Your task to perform on an android device: search for starred emails in the gmail app Image 0: 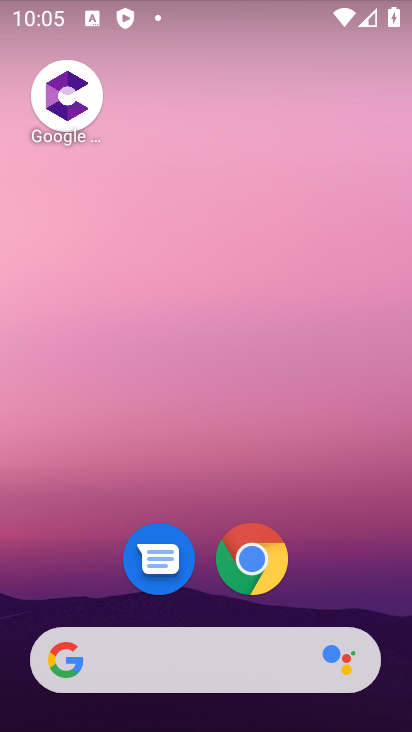
Step 0: drag from (332, 536) to (240, 46)
Your task to perform on an android device: search for starred emails in the gmail app Image 1: 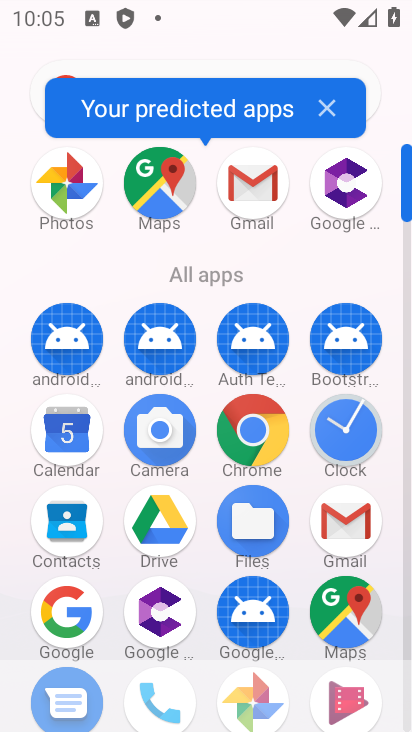
Step 1: drag from (245, 178) to (94, 189)
Your task to perform on an android device: search for starred emails in the gmail app Image 2: 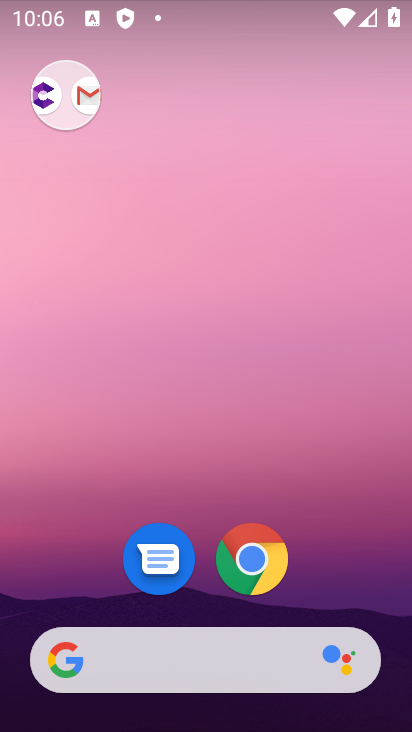
Step 2: click (83, 86)
Your task to perform on an android device: search for starred emails in the gmail app Image 3: 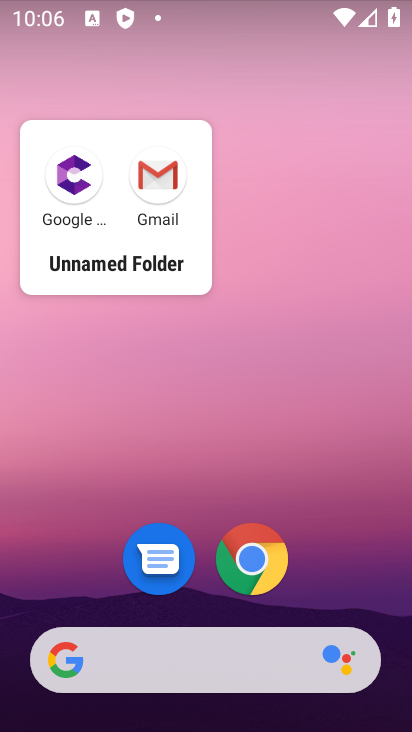
Step 3: drag from (153, 176) to (48, 406)
Your task to perform on an android device: search for starred emails in the gmail app Image 4: 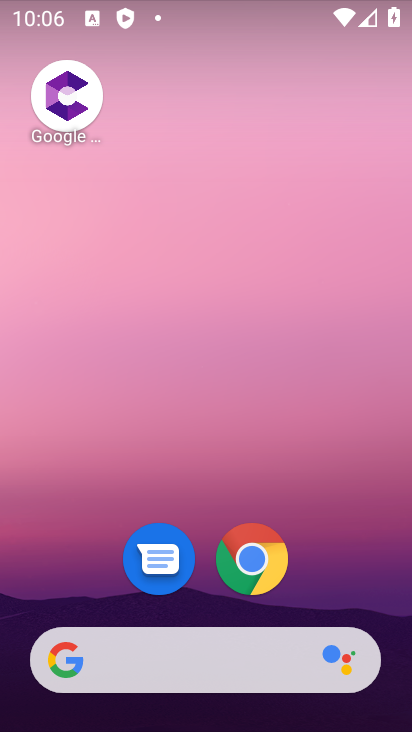
Step 4: drag from (51, 368) to (245, 12)
Your task to perform on an android device: search for starred emails in the gmail app Image 5: 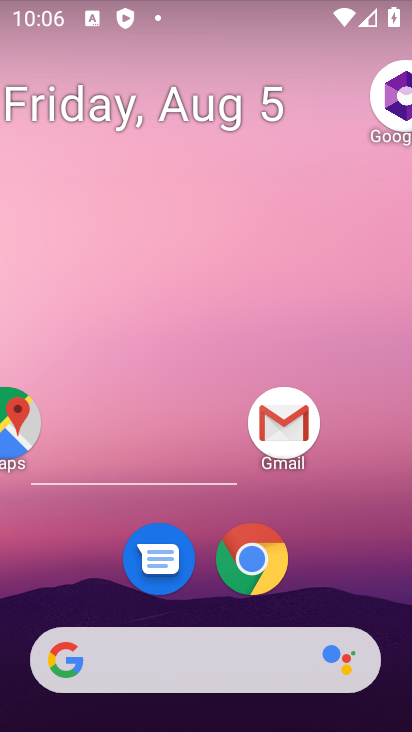
Step 5: click (240, 428)
Your task to perform on an android device: search for starred emails in the gmail app Image 6: 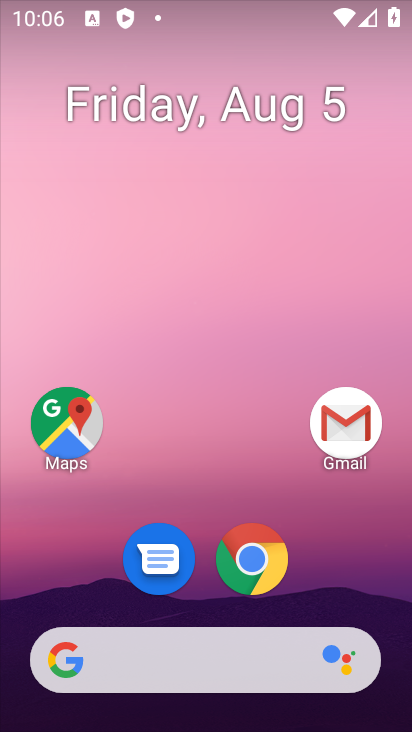
Step 6: click (339, 419)
Your task to perform on an android device: search for starred emails in the gmail app Image 7: 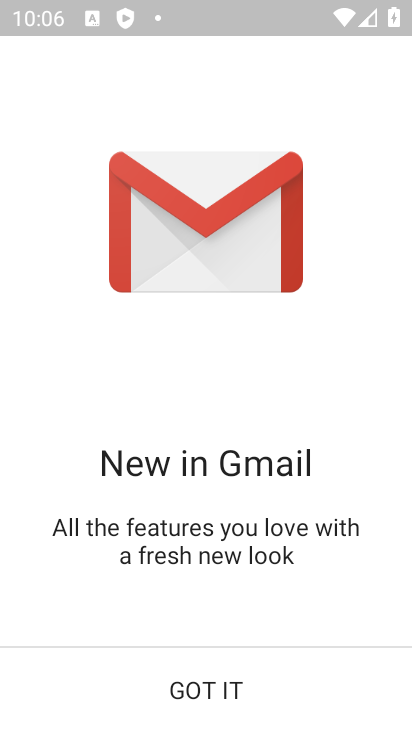
Step 7: click (178, 700)
Your task to perform on an android device: search for starred emails in the gmail app Image 8: 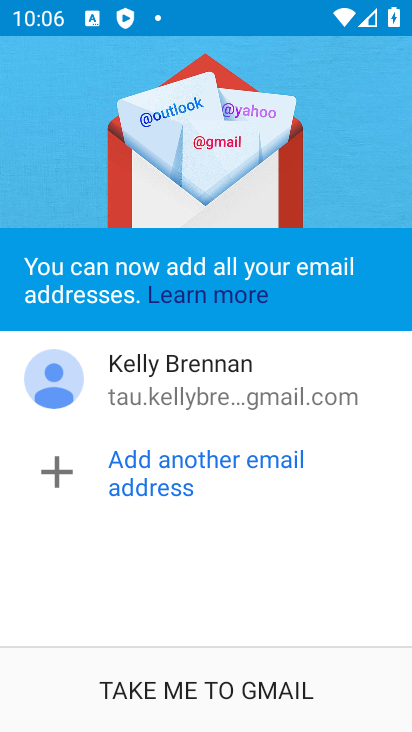
Step 8: press home button
Your task to perform on an android device: search for starred emails in the gmail app Image 9: 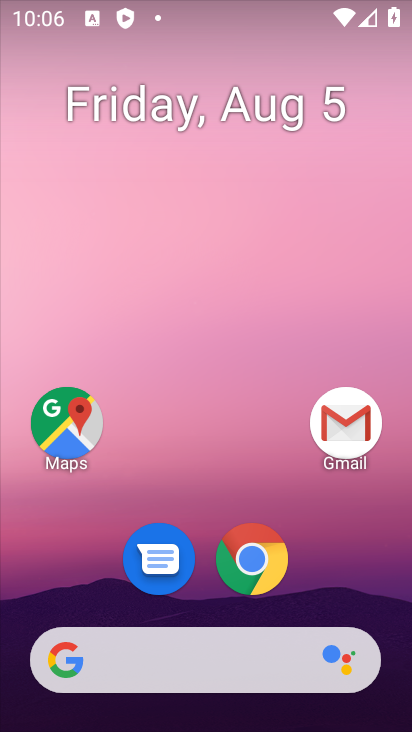
Step 9: click (360, 430)
Your task to perform on an android device: search for starred emails in the gmail app Image 10: 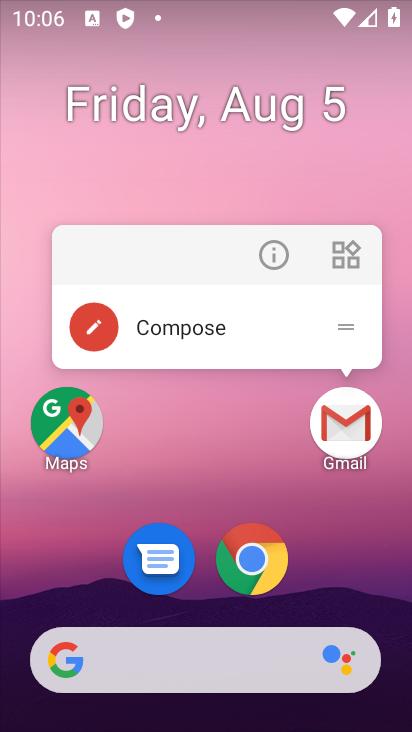
Step 10: click (360, 403)
Your task to perform on an android device: search for starred emails in the gmail app Image 11: 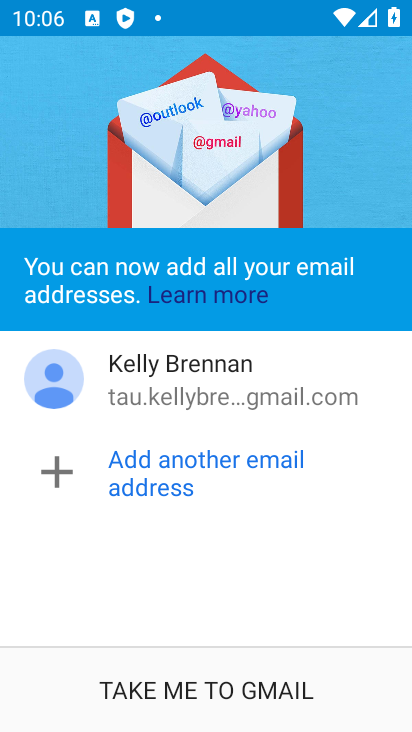
Step 11: click (280, 722)
Your task to perform on an android device: search for starred emails in the gmail app Image 12: 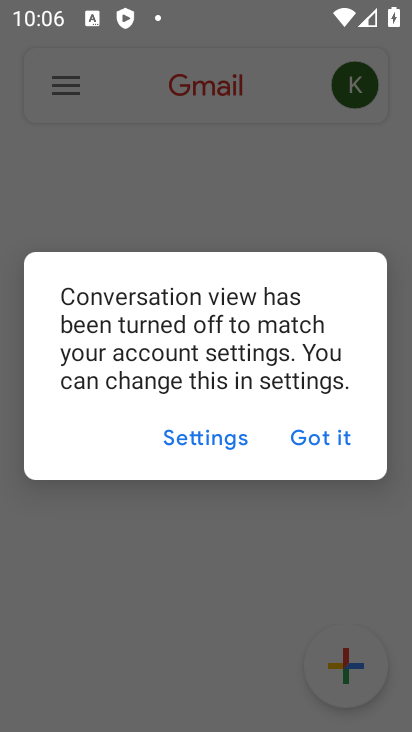
Step 12: click (355, 431)
Your task to perform on an android device: search for starred emails in the gmail app Image 13: 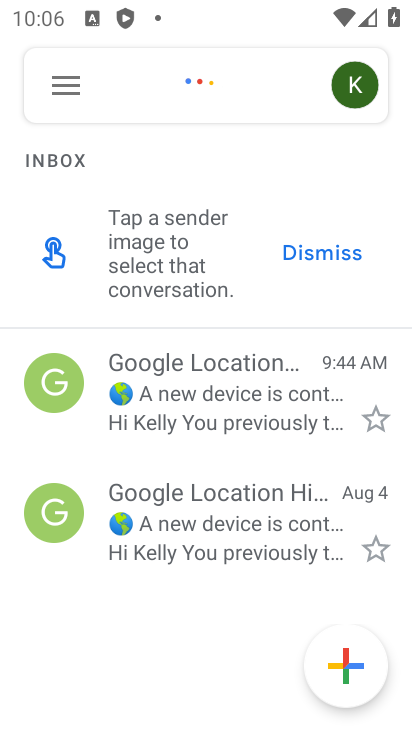
Step 13: click (63, 88)
Your task to perform on an android device: search for starred emails in the gmail app Image 14: 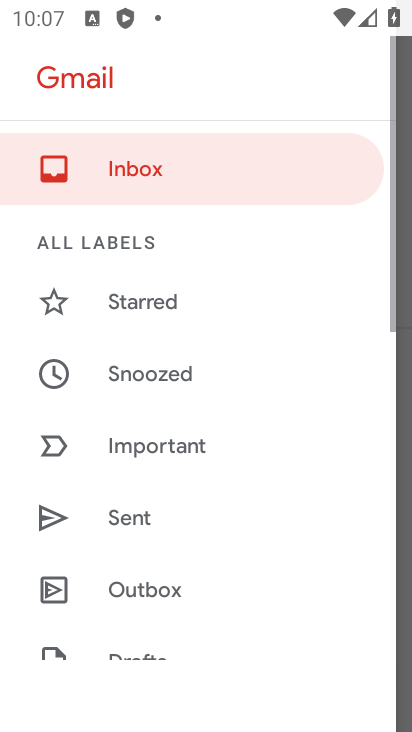
Step 14: click (187, 289)
Your task to perform on an android device: search for starred emails in the gmail app Image 15: 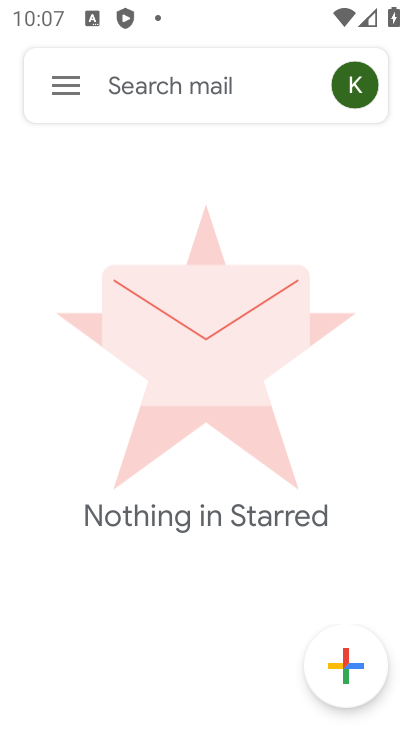
Step 15: task complete